Your task to perform on an android device: turn on improve location accuracy Image 0: 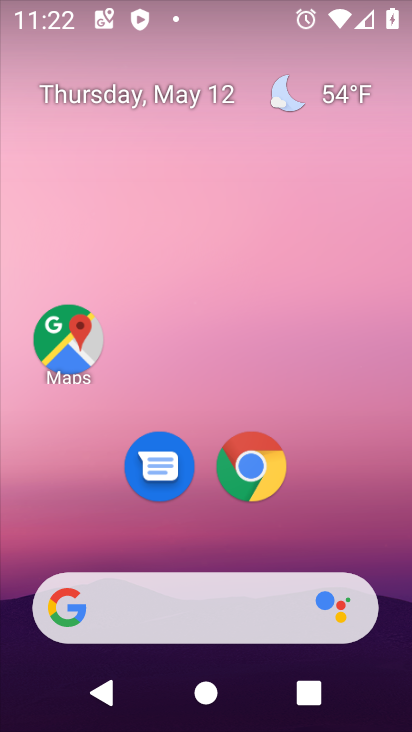
Step 0: drag from (375, 546) to (345, 195)
Your task to perform on an android device: turn on improve location accuracy Image 1: 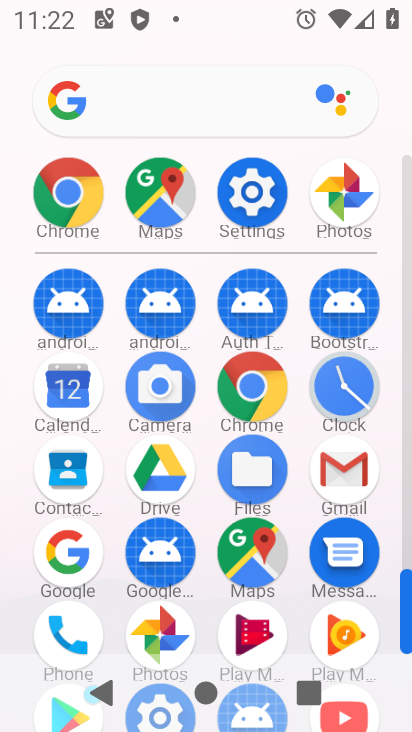
Step 1: click (247, 197)
Your task to perform on an android device: turn on improve location accuracy Image 2: 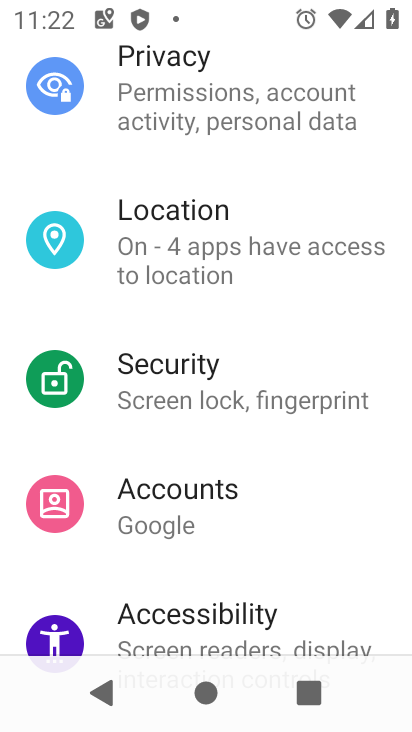
Step 2: drag from (235, 355) to (260, 499)
Your task to perform on an android device: turn on improve location accuracy Image 3: 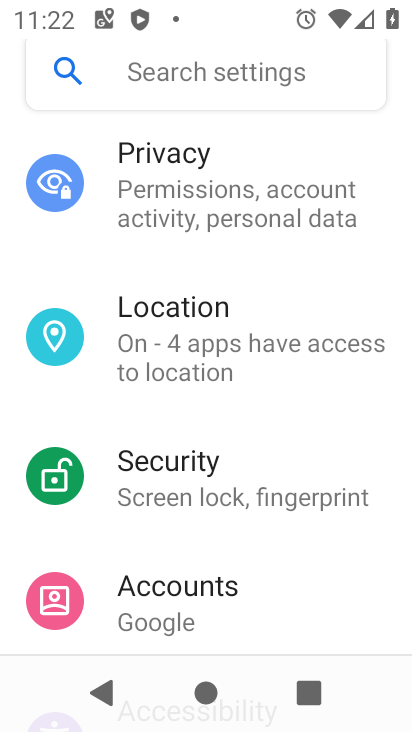
Step 3: click (209, 286)
Your task to perform on an android device: turn on improve location accuracy Image 4: 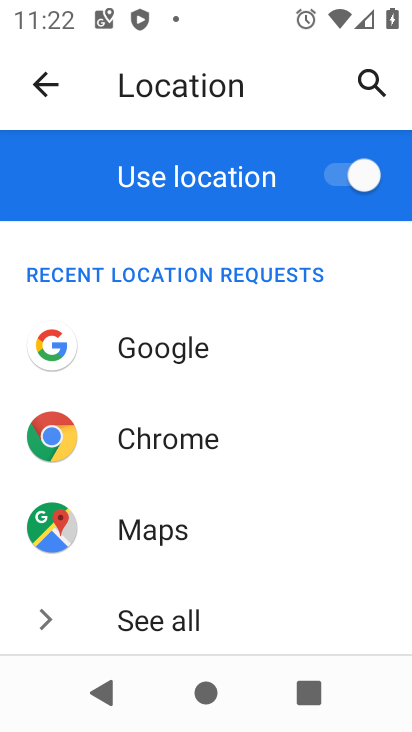
Step 4: drag from (252, 624) to (259, 262)
Your task to perform on an android device: turn on improve location accuracy Image 5: 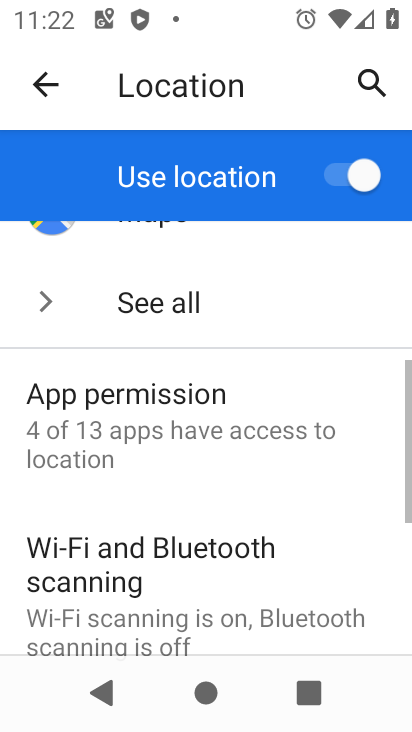
Step 5: drag from (287, 601) to (261, 398)
Your task to perform on an android device: turn on improve location accuracy Image 6: 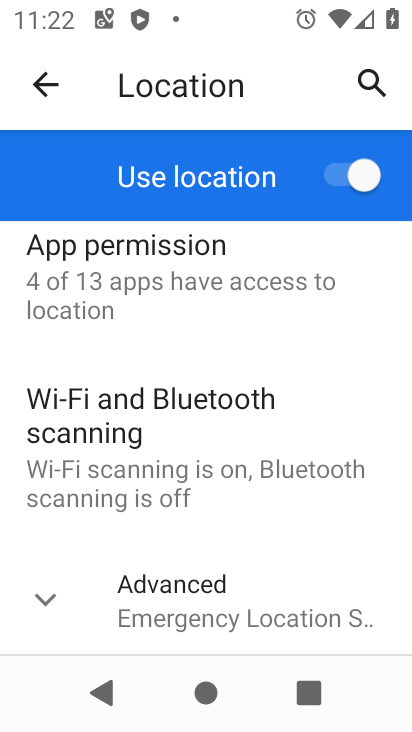
Step 6: click (258, 633)
Your task to perform on an android device: turn on improve location accuracy Image 7: 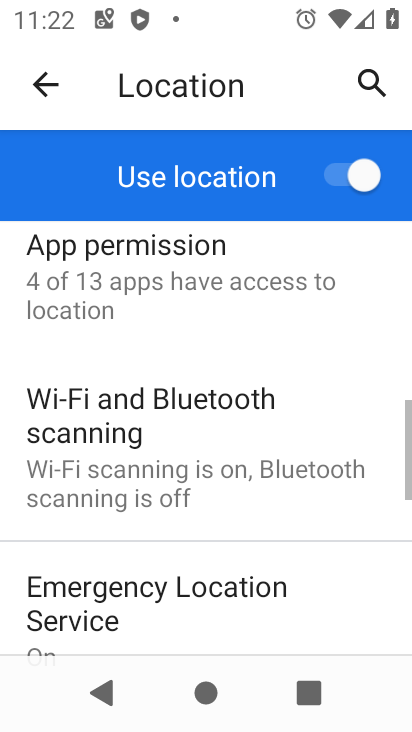
Step 7: drag from (264, 633) to (272, 387)
Your task to perform on an android device: turn on improve location accuracy Image 8: 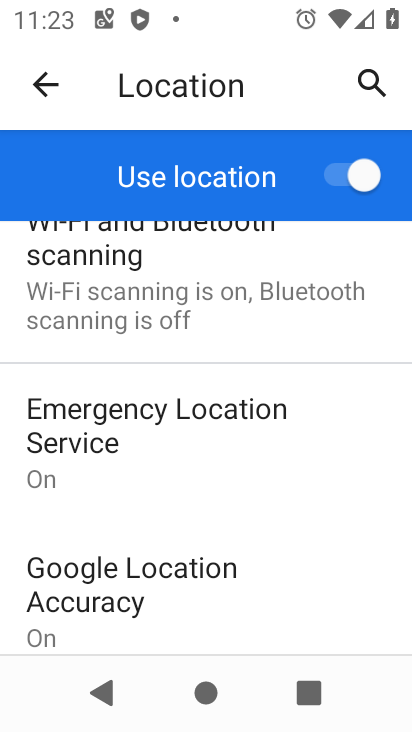
Step 8: drag from (238, 545) to (335, 275)
Your task to perform on an android device: turn on improve location accuracy Image 9: 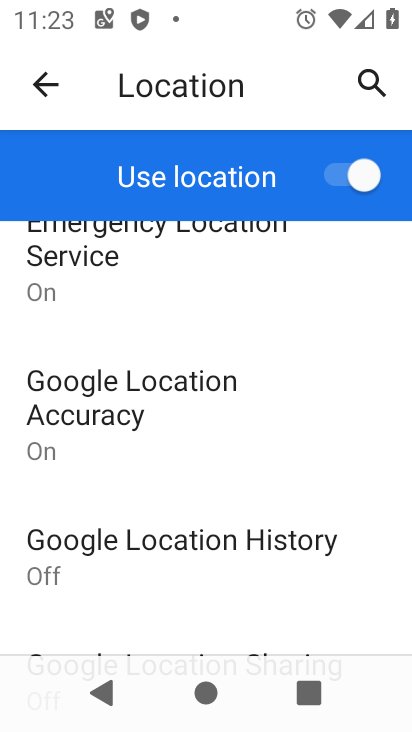
Step 9: drag from (267, 578) to (278, 476)
Your task to perform on an android device: turn on improve location accuracy Image 10: 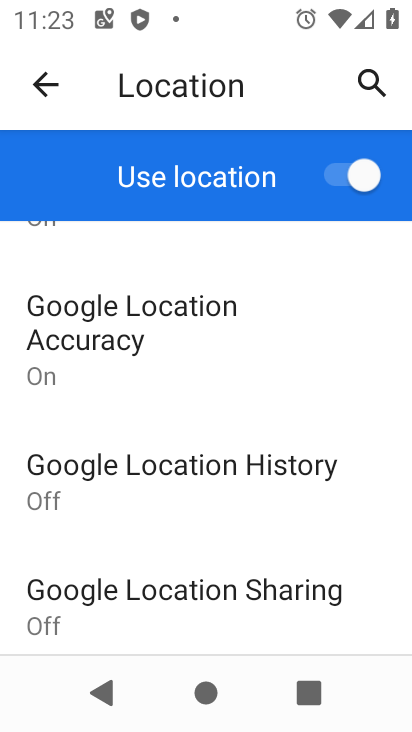
Step 10: click (140, 344)
Your task to perform on an android device: turn on improve location accuracy Image 11: 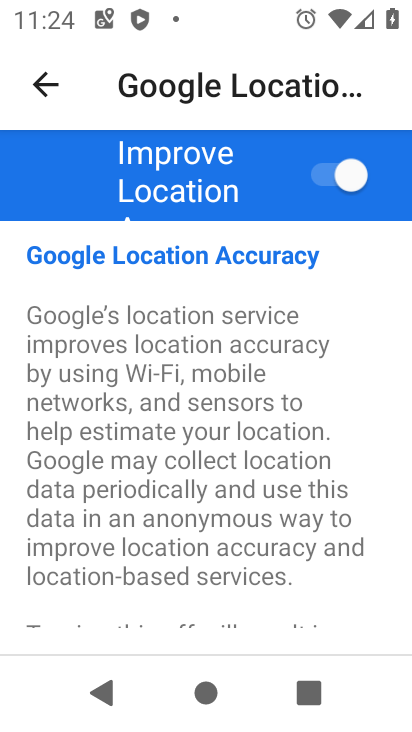
Step 11: task complete